Your task to perform on an android device: Go to privacy settings Image 0: 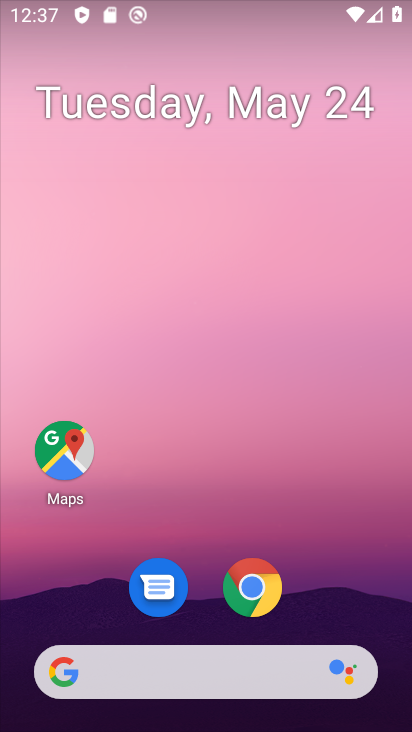
Step 0: drag from (216, 659) to (245, 168)
Your task to perform on an android device: Go to privacy settings Image 1: 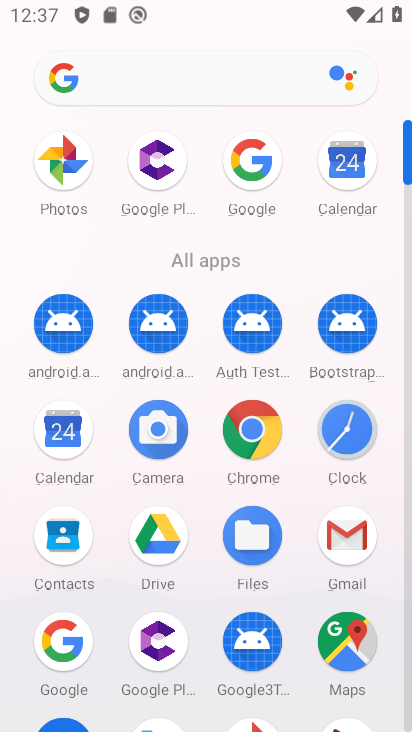
Step 1: drag from (199, 603) to (205, 262)
Your task to perform on an android device: Go to privacy settings Image 2: 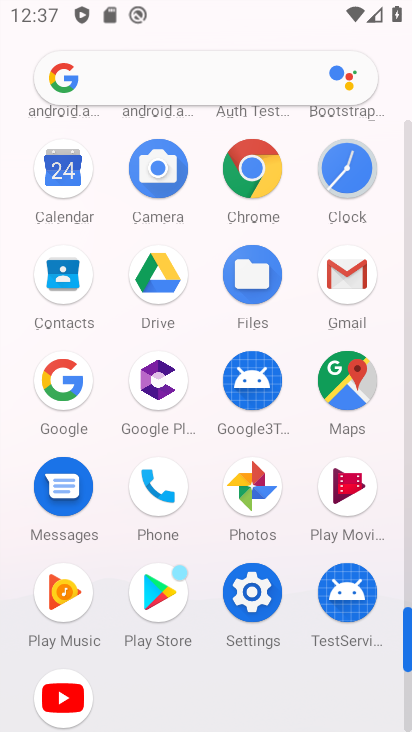
Step 2: click (256, 592)
Your task to perform on an android device: Go to privacy settings Image 3: 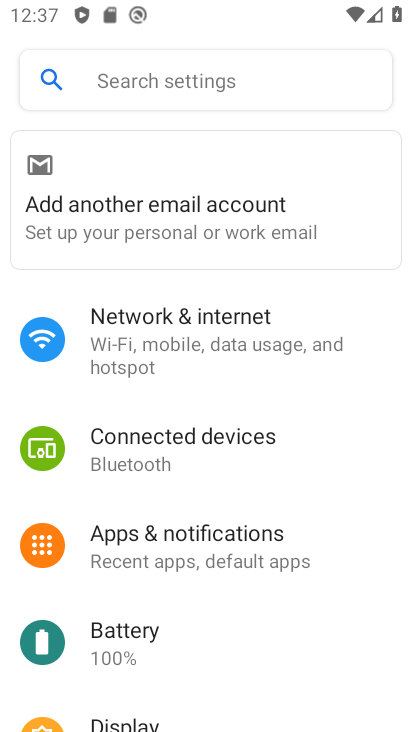
Step 3: drag from (165, 588) to (166, 115)
Your task to perform on an android device: Go to privacy settings Image 4: 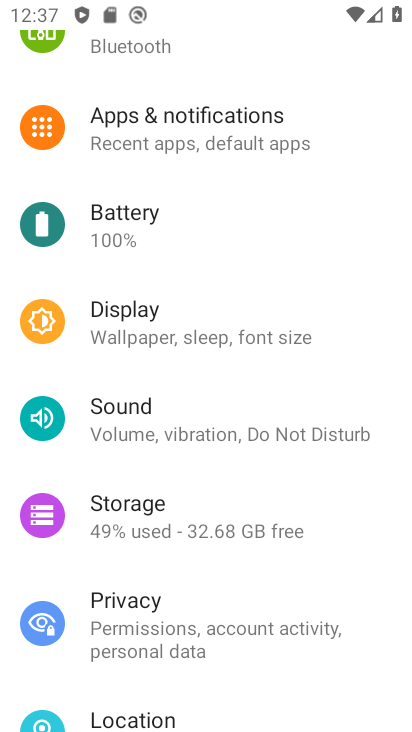
Step 4: click (164, 612)
Your task to perform on an android device: Go to privacy settings Image 5: 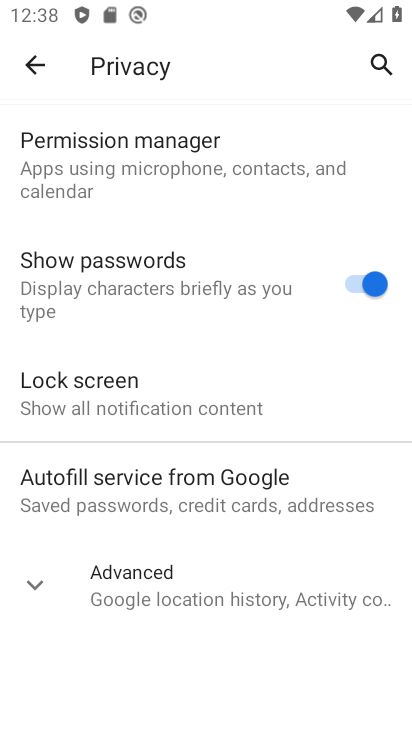
Step 5: task complete